Your task to perform on an android device: What's the weather going to be tomorrow? Image 0: 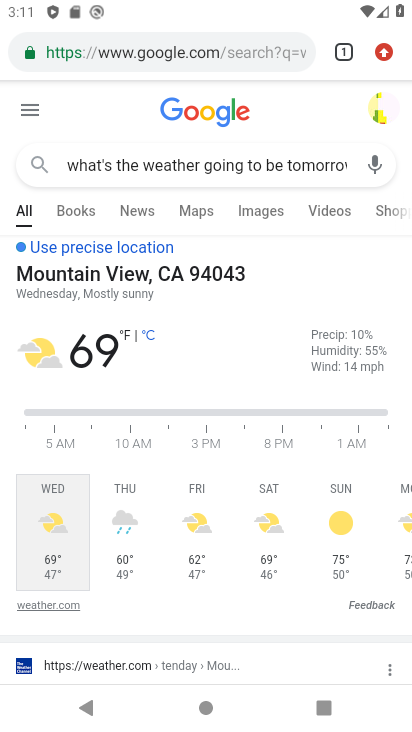
Step 0: task complete